Your task to perform on an android device: turn notification dots off Image 0: 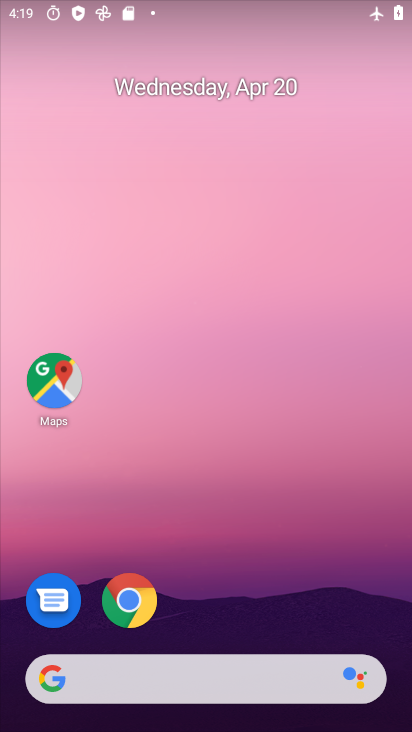
Step 0: drag from (220, 358) to (251, 136)
Your task to perform on an android device: turn notification dots off Image 1: 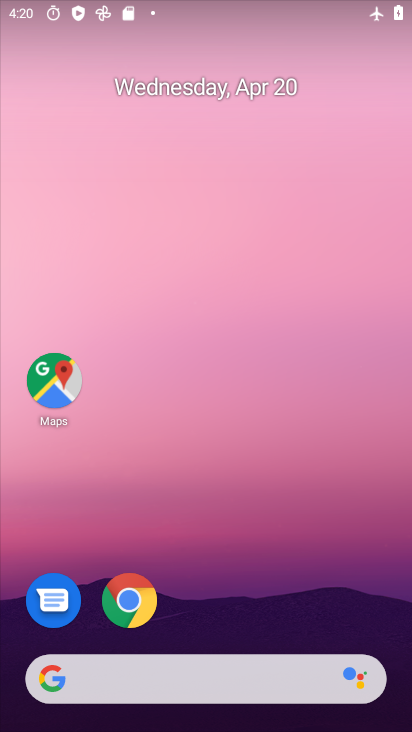
Step 1: drag from (275, 594) to (199, 140)
Your task to perform on an android device: turn notification dots off Image 2: 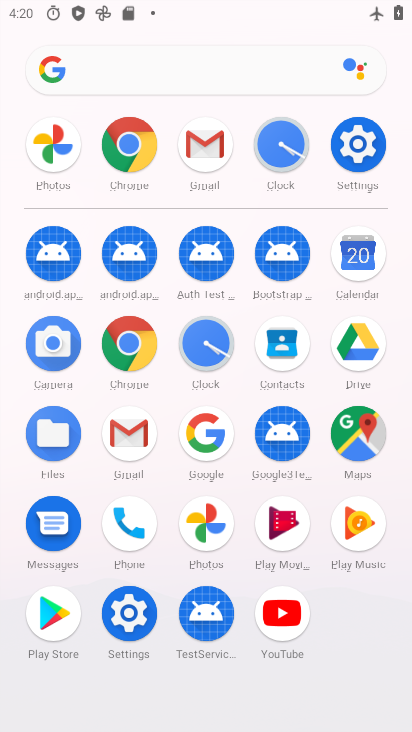
Step 2: click (351, 149)
Your task to perform on an android device: turn notification dots off Image 3: 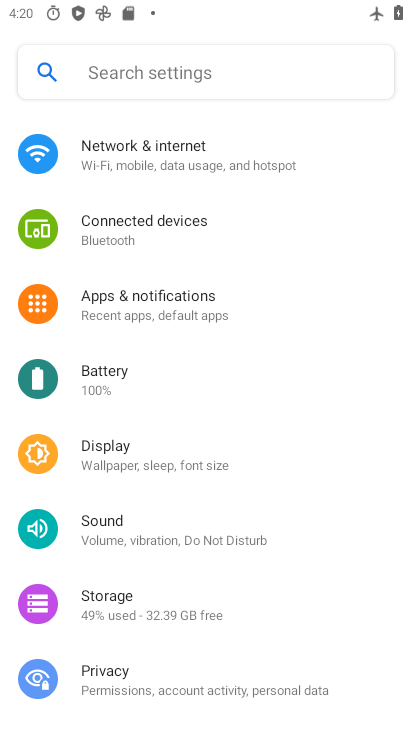
Step 3: drag from (212, 503) to (227, 215)
Your task to perform on an android device: turn notification dots off Image 4: 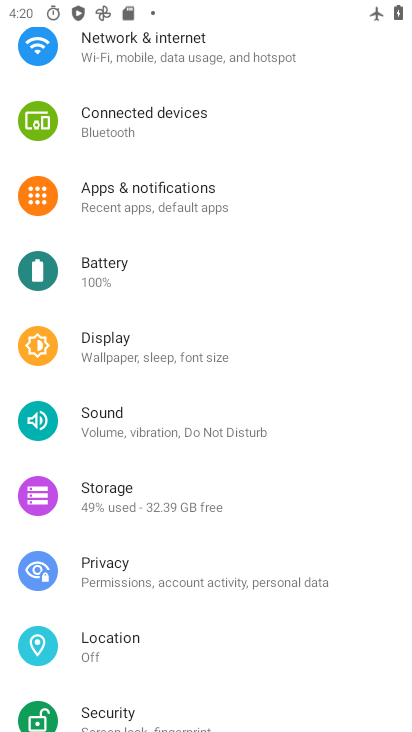
Step 4: click (161, 182)
Your task to perform on an android device: turn notification dots off Image 5: 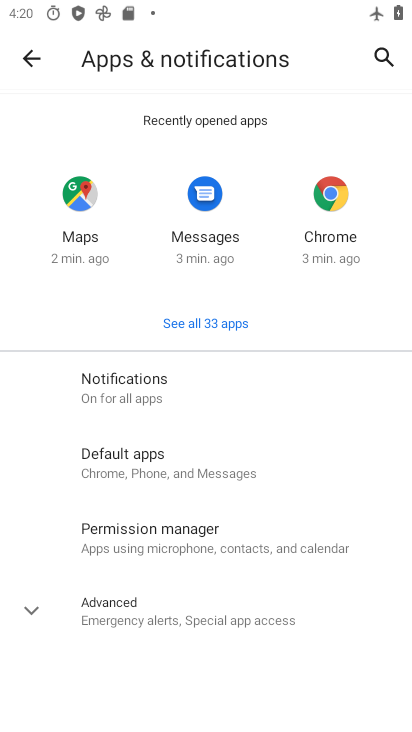
Step 5: click (154, 392)
Your task to perform on an android device: turn notification dots off Image 6: 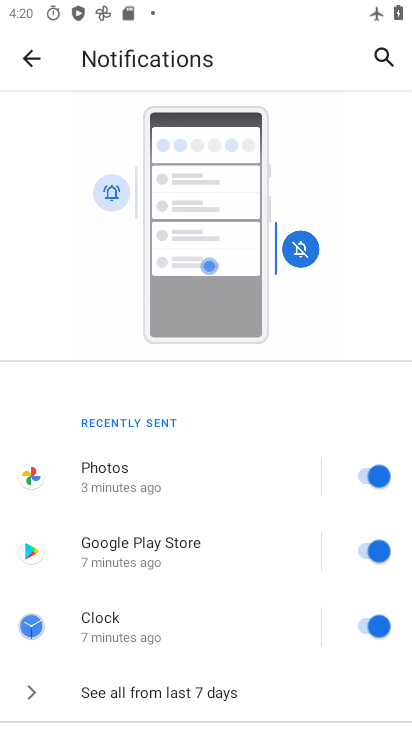
Step 6: drag from (197, 556) to (182, 120)
Your task to perform on an android device: turn notification dots off Image 7: 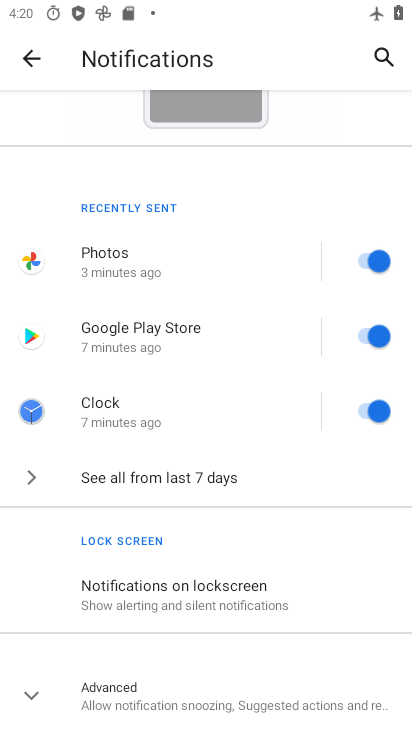
Step 7: drag from (197, 419) to (207, 95)
Your task to perform on an android device: turn notification dots off Image 8: 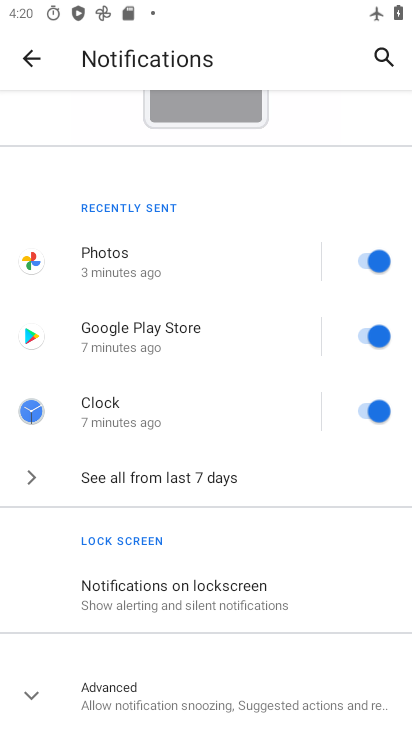
Step 8: click (173, 697)
Your task to perform on an android device: turn notification dots off Image 9: 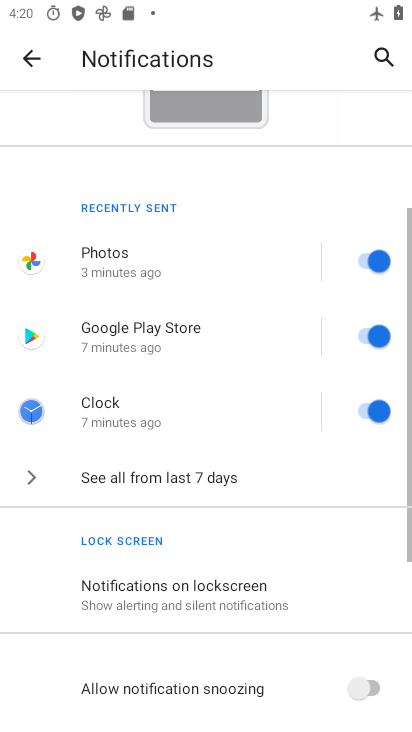
Step 9: task complete